Your task to perform on an android device: open app "Venmo" (install if not already installed), go to login, and select forgot password Image 0: 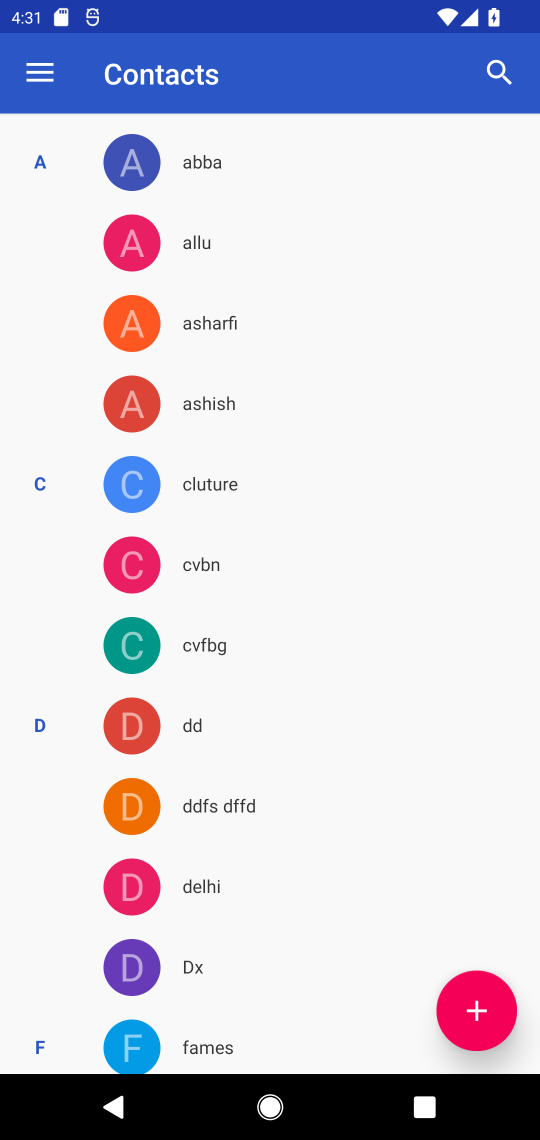
Step 0: press home button
Your task to perform on an android device: open app "Venmo" (install if not already installed), go to login, and select forgot password Image 1: 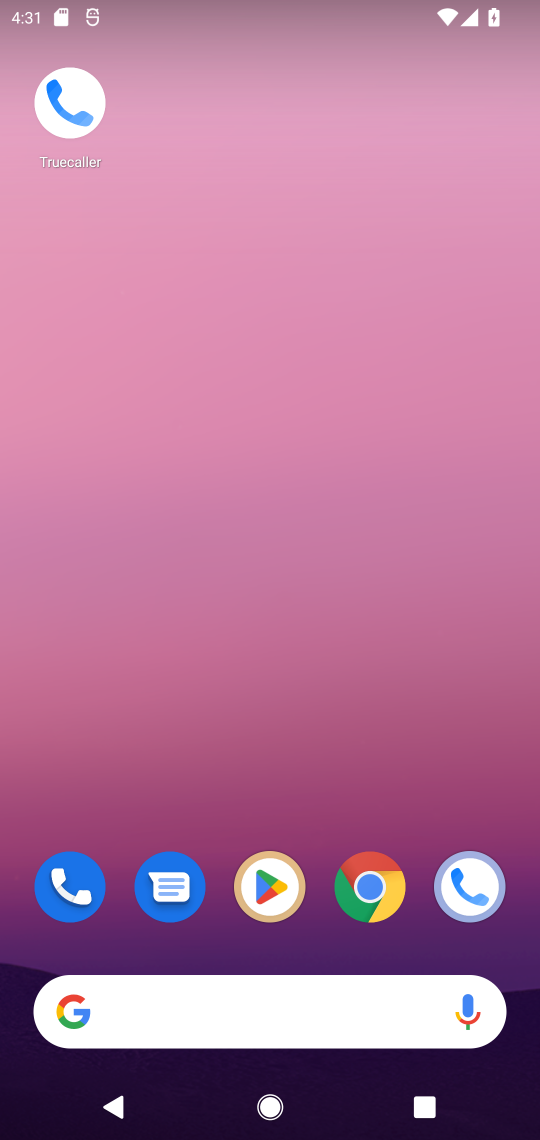
Step 1: click (257, 879)
Your task to perform on an android device: open app "Venmo" (install if not already installed), go to login, and select forgot password Image 2: 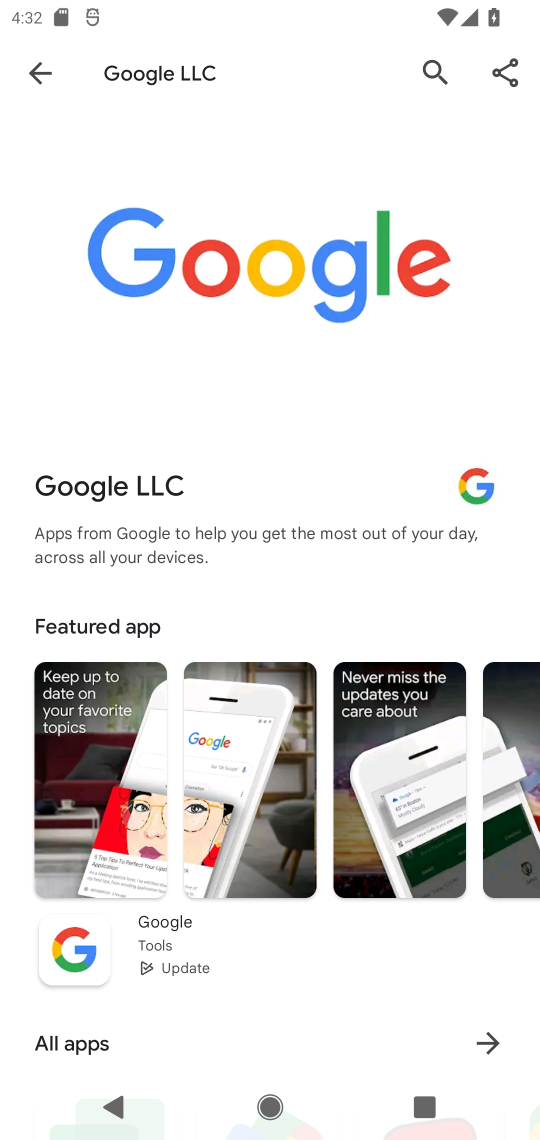
Step 2: click (34, 79)
Your task to perform on an android device: open app "Venmo" (install if not already installed), go to login, and select forgot password Image 3: 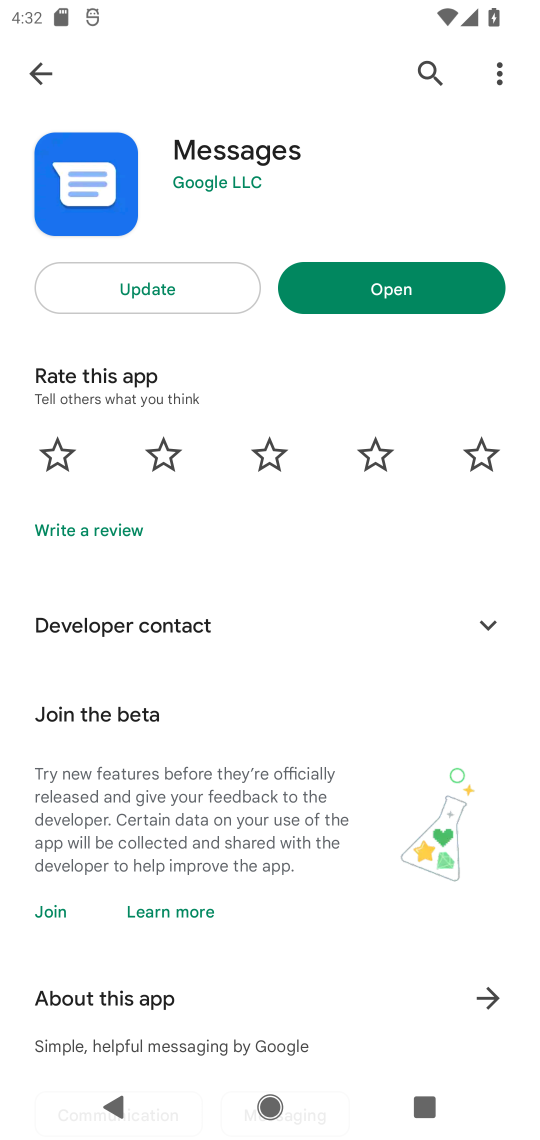
Step 3: click (34, 79)
Your task to perform on an android device: open app "Venmo" (install if not already installed), go to login, and select forgot password Image 4: 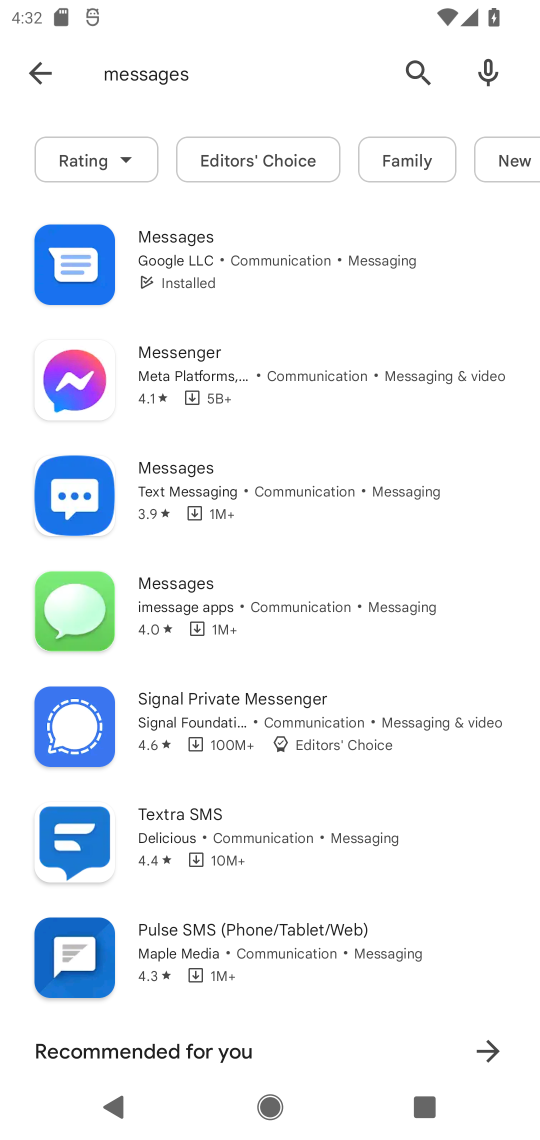
Step 4: click (34, 79)
Your task to perform on an android device: open app "Venmo" (install if not already installed), go to login, and select forgot password Image 5: 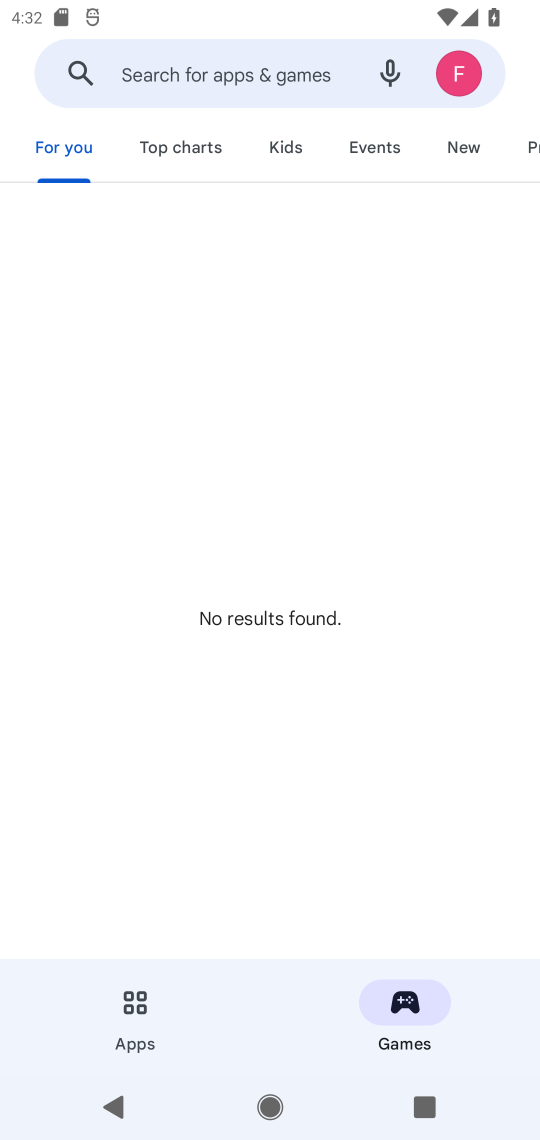
Step 5: click (158, 79)
Your task to perform on an android device: open app "Venmo" (install if not already installed), go to login, and select forgot password Image 6: 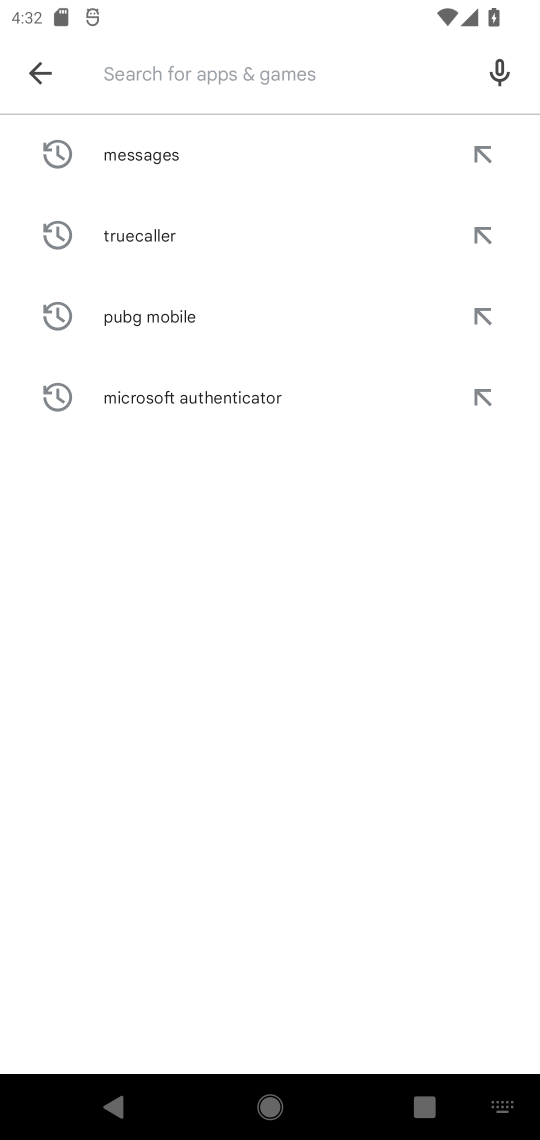
Step 6: type "Venmo"
Your task to perform on an android device: open app "Venmo" (install if not already installed), go to login, and select forgot password Image 7: 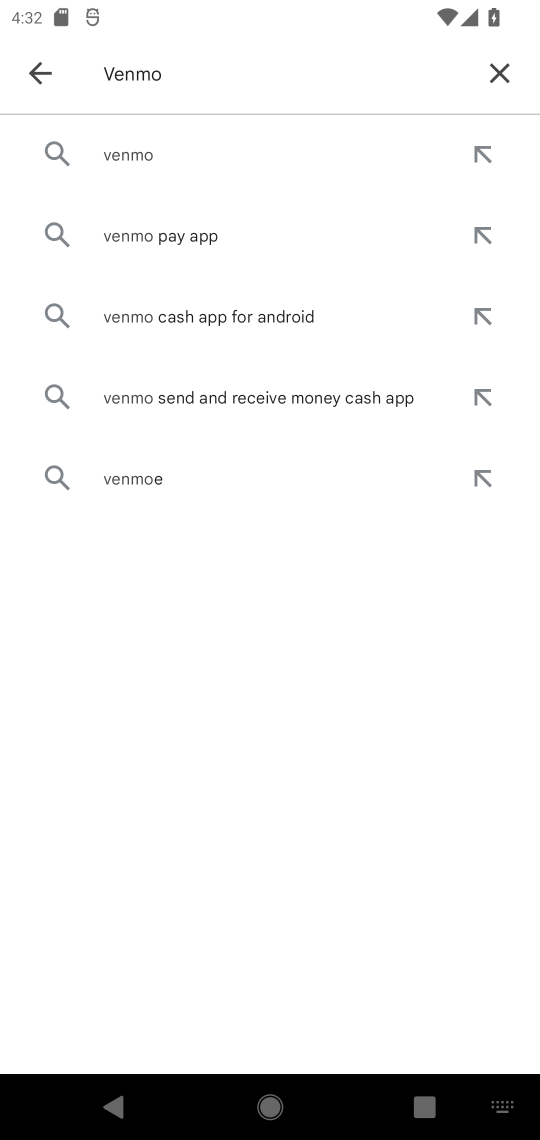
Step 7: click (116, 159)
Your task to perform on an android device: open app "Venmo" (install if not already installed), go to login, and select forgot password Image 8: 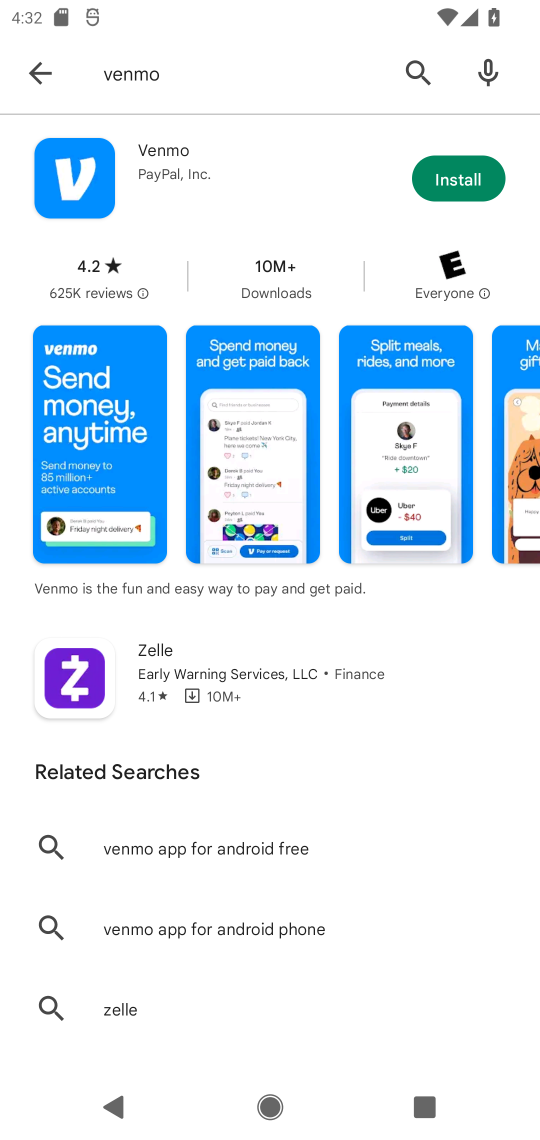
Step 8: click (441, 182)
Your task to perform on an android device: open app "Venmo" (install if not already installed), go to login, and select forgot password Image 9: 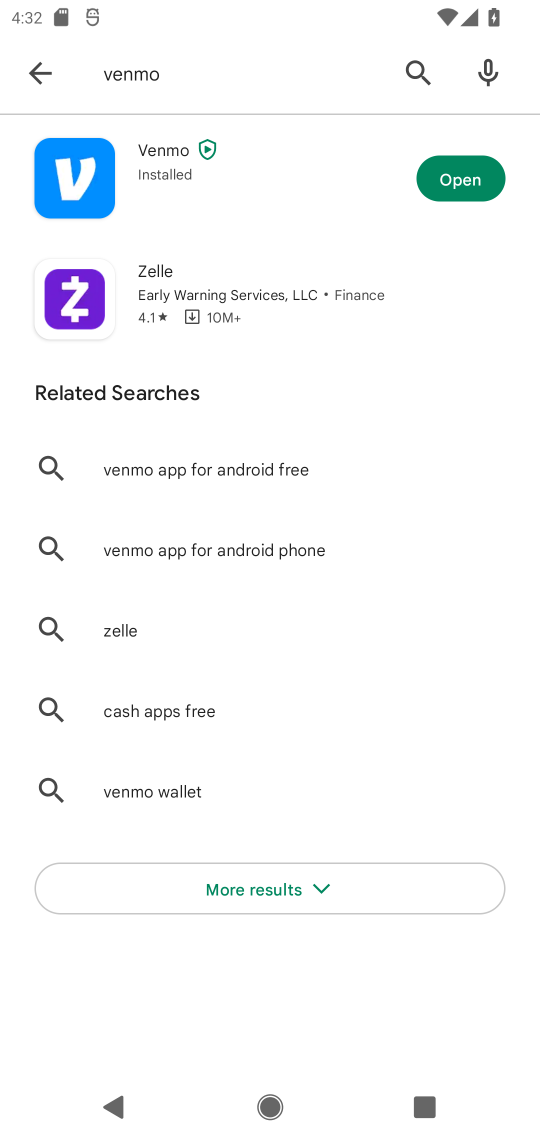
Step 9: click (433, 174)
Your task to perform on an android device: open app "Venmo" (install if not already installed), go to login, and select forgot password Image 10: 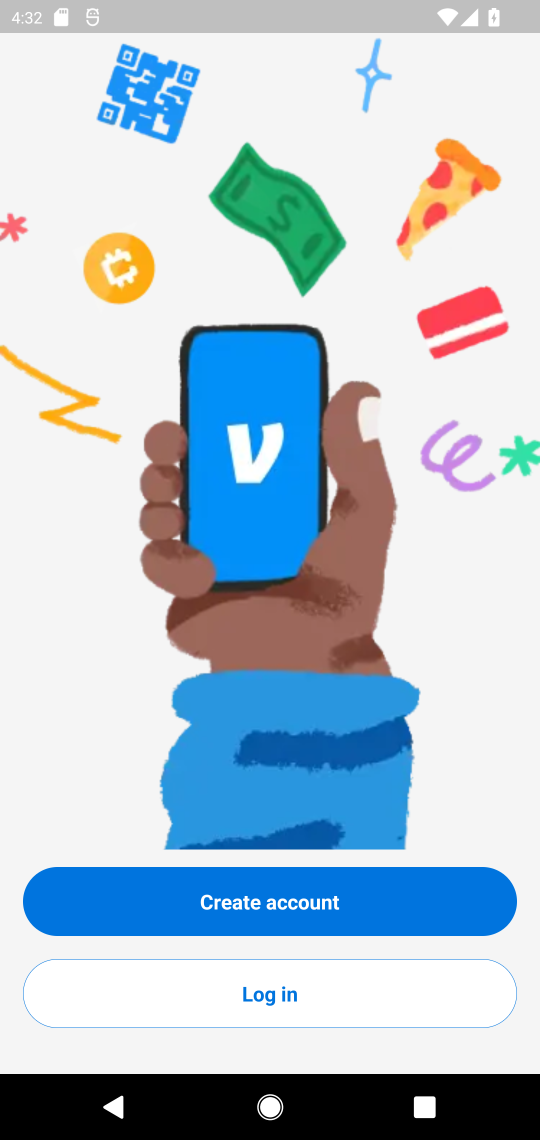
Step 10: task complete